Your task to perform on an android device: Go to Android settings Image 0: 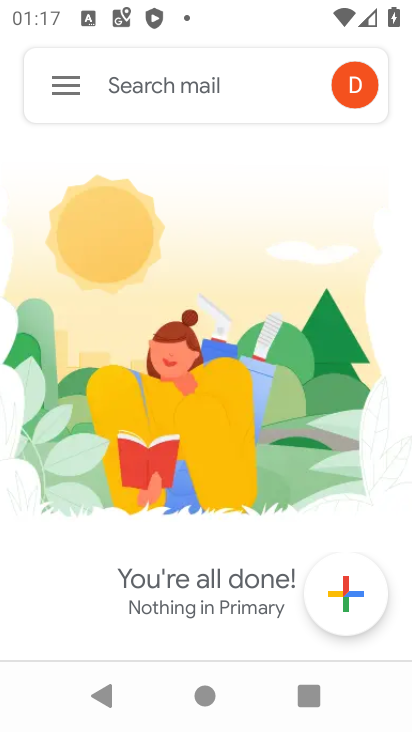
Step 0: press home button
Your task to perform on an android device: Go to Android settings Image 1: 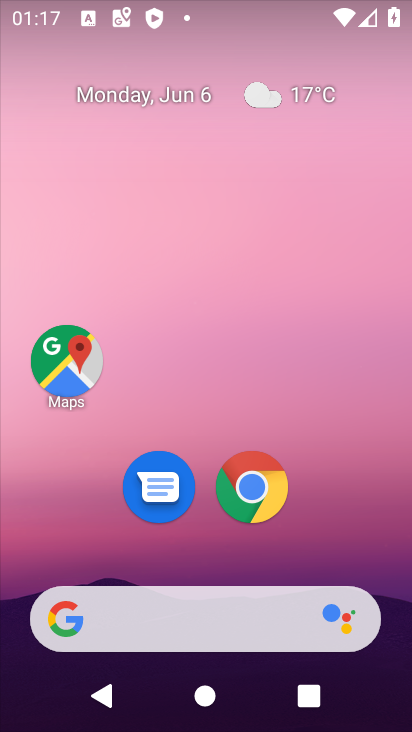
Step 1: drag from (396, 619) to (339, 19)
Your task to perform on an android device: Go to Android settings Image 2: 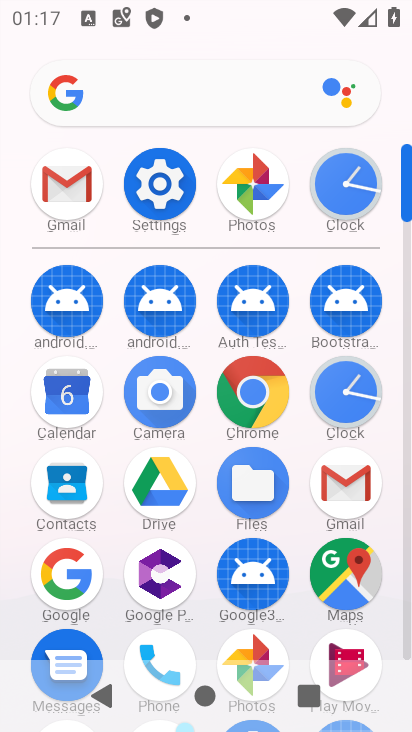
Step 2: click (405, 634)
Your task to perform on an android device: Go to Android settings Image 3: 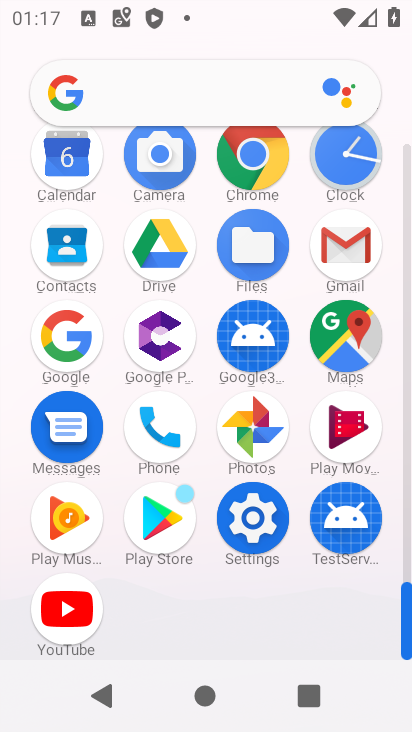
Step 3: click (255, 515)
Your task to perform on an android device: Go to Android settings Image 4: 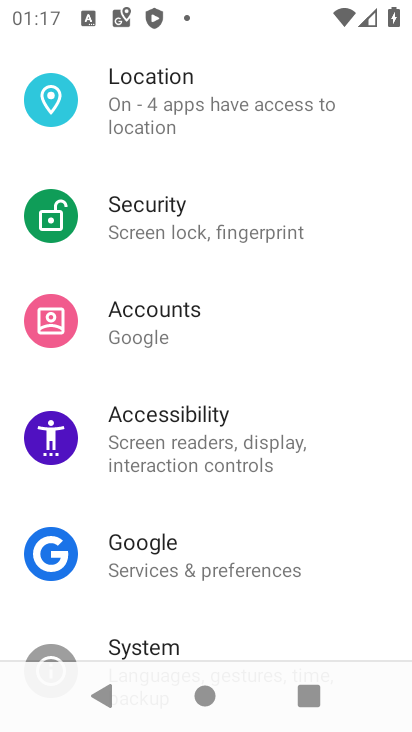
Step 4: drag from (329, 621) to (305, 161)
Your task to perform on an android device: Go to Android settings Image 5: 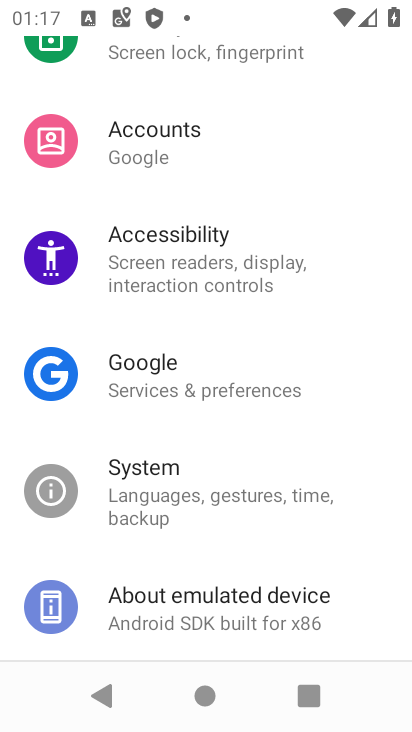
Step 5: click (179, 611)
Your task to perform on an android device: Go to Android settings Image 6: 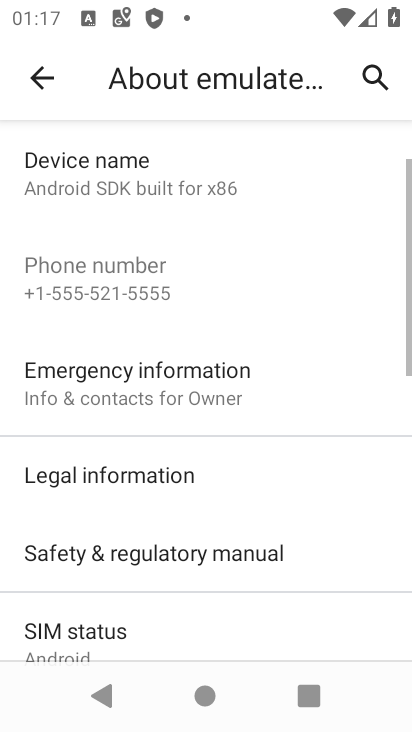
Step 6: task complete